Your task to perform on an android device: toggle notifications settings in the gmail app Image 0: 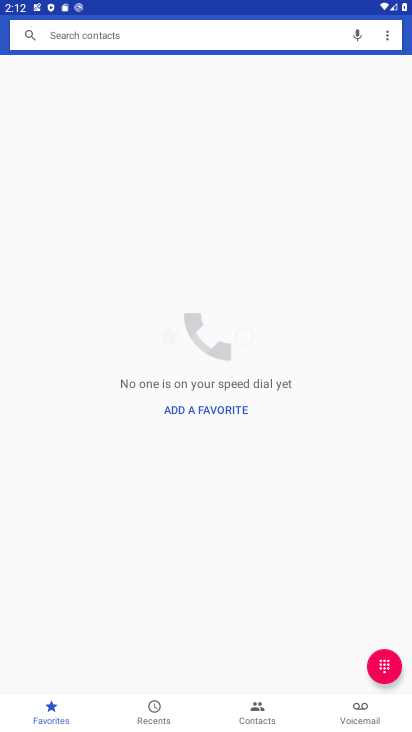
Step 0: press home button
Your task to perform on an android device: toggle notifications settings in the gmail app Image 1: 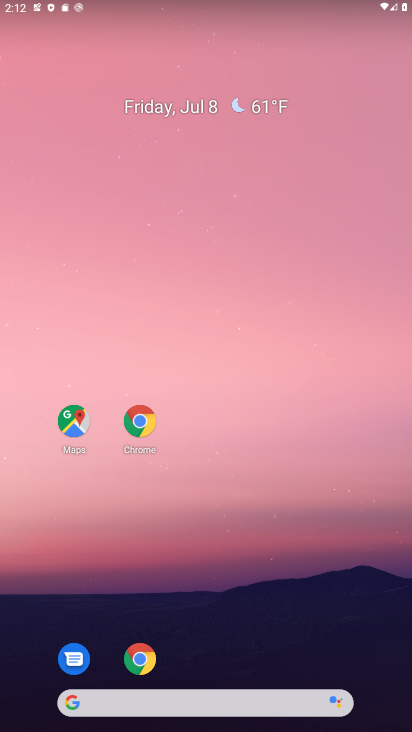
Step 1: drag from (201, 690) to (135, 177)
Your task to perform on an android device: toggle notifications settings in the gmail app Image 2: 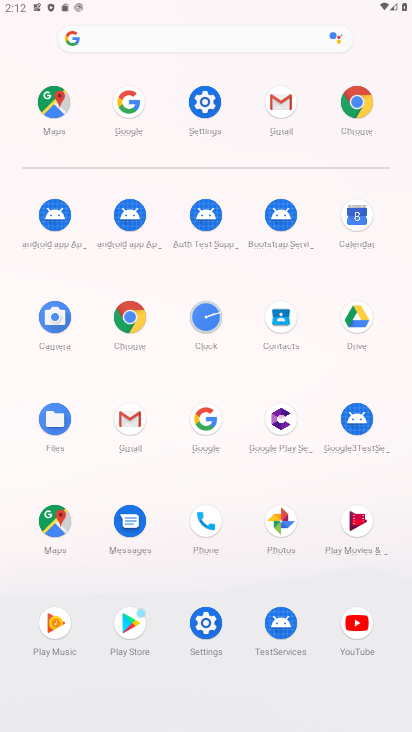
Step 2: click (133, 414)
Your task to perform on an android device: toggle notifications settings in the gmail app Image 3: 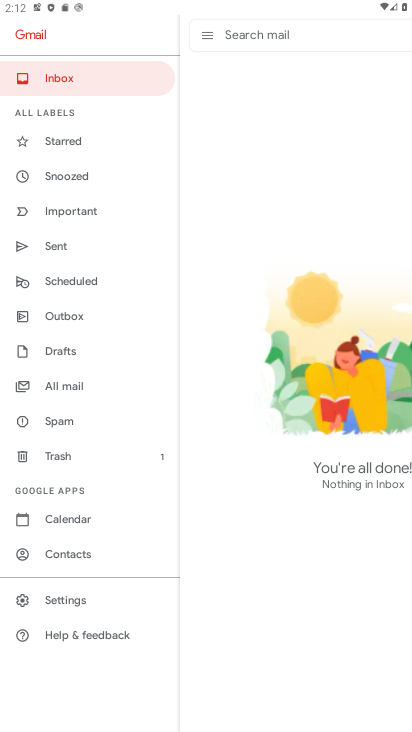
Step 3: click (60, 599)
Your task to perform on an android device: toggle notifications settings in the gmail app Image 4: 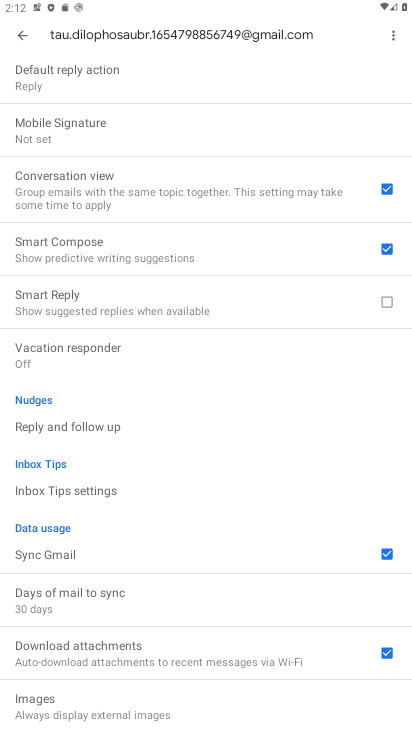
Step 4: click (22, 29)
Your task to perform on an android device: toggle notifications settings in the gmail app Image 5: 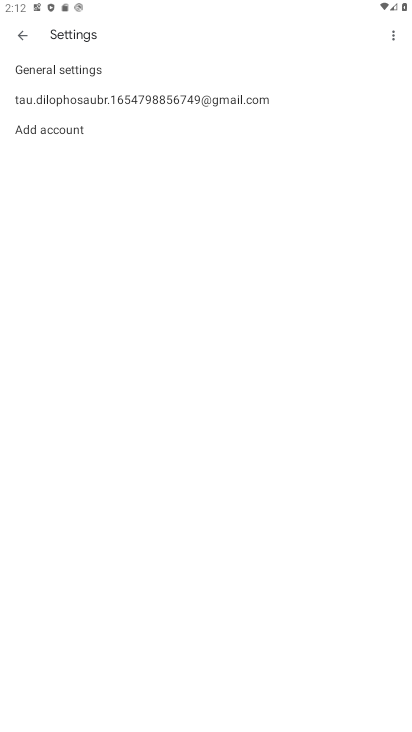
Step 5: click (39, 68)
Your task to perform on an android device: toggle notifications settings in the gmail app Image 6: 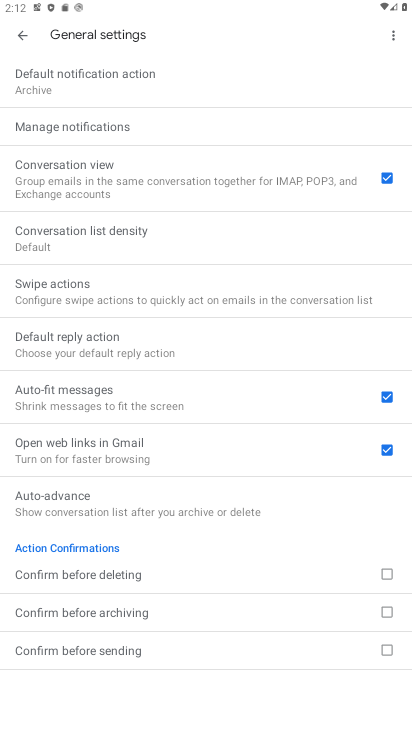
Step 6: click (74, 117)
Your task to perform on an android device: toggle notifications settings in the gmail app Image 7: 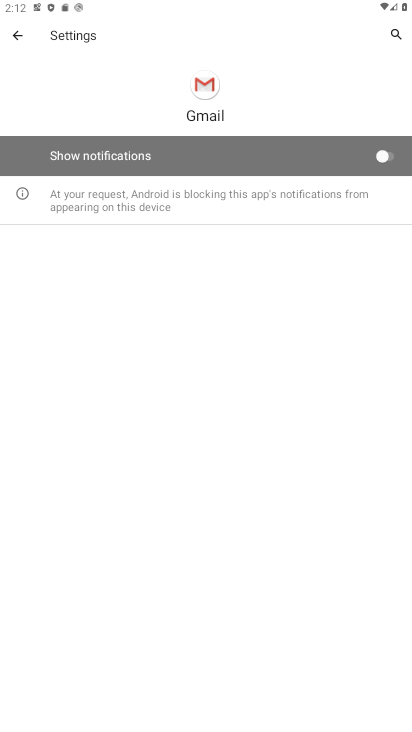
Step 7: click (397, 159)
Your task to perform on an android device: toggle notifications settings in the gmail app Image 8: 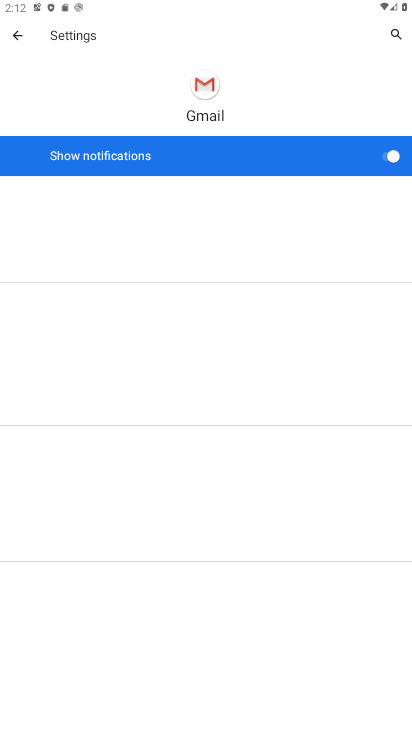
Step 8: task complete